Your task to perform on an android device: all mails in gmail Image 0: 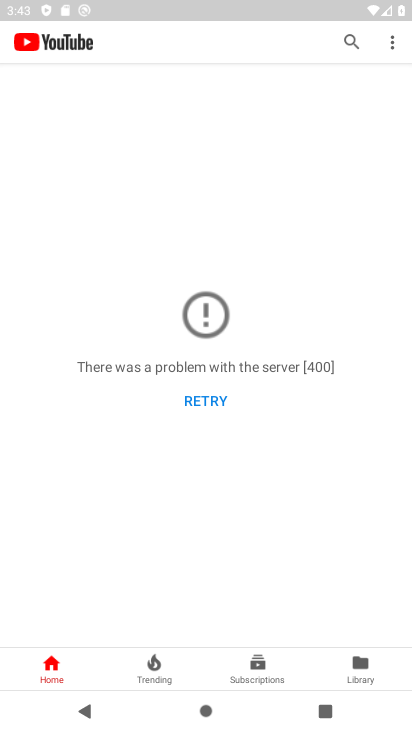
Step 0: press home button
Your task to perform on an android device: all mails in gmail Image 1: 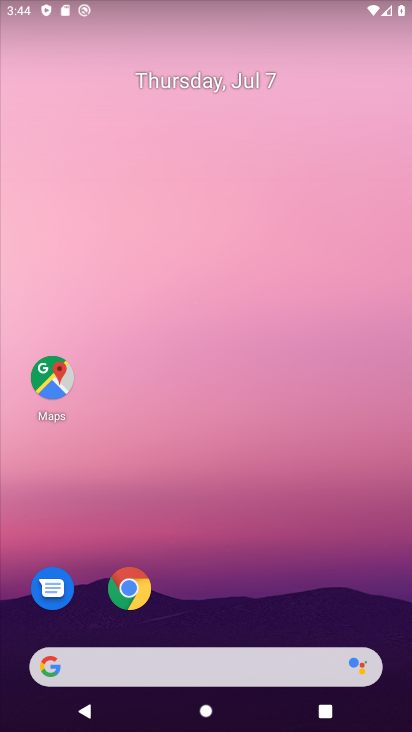
Step 1: drag from (188, 612) to (196, 204)
Your task to perform on an android device: all mails in gmail Image 2: 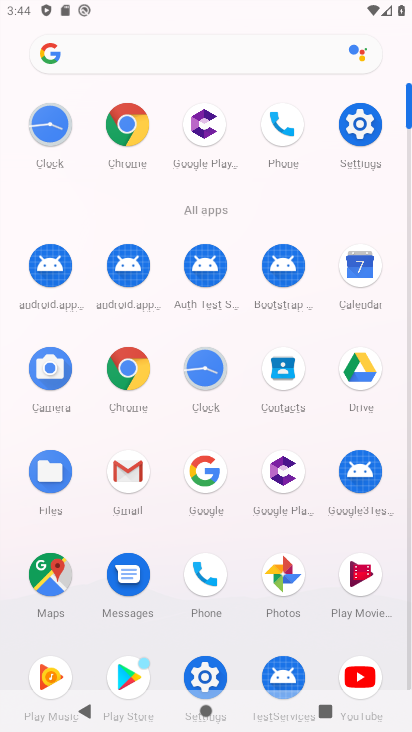
Step 2: click (125, 474)
Your task to perform on an android device: all mails in gmail Image 3: 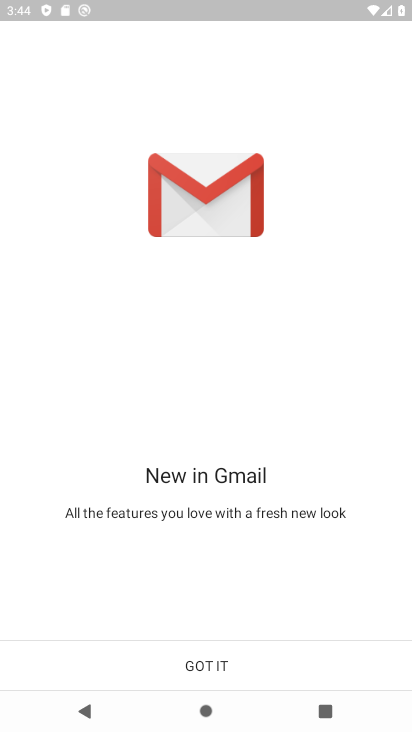
Step 3: click (169, 665)
Your task to perform on an android device: all mails in gmail Image 4: 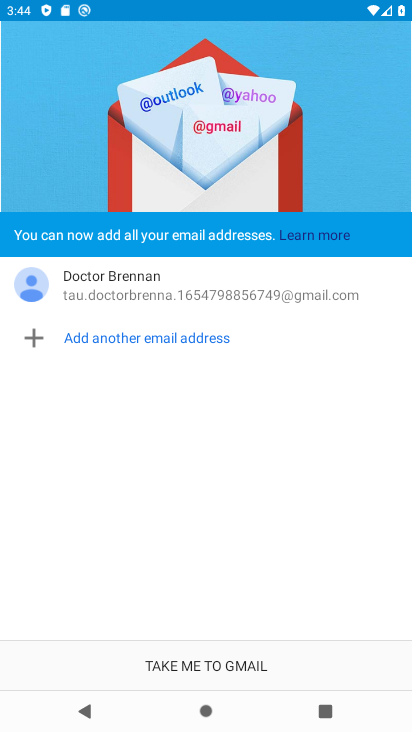
Step 4: click (169, 665)
Your task to perform on an android device: all mails in gmail Image 5: 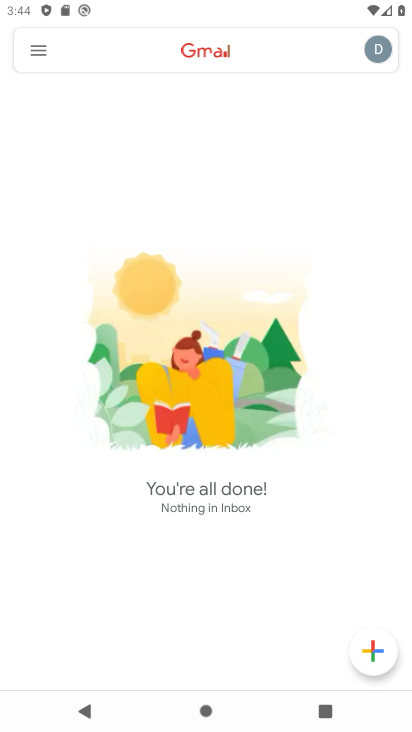
Step 5: click (37, 52)
Your task to perform on an android device: all mails in gmail Image 6: 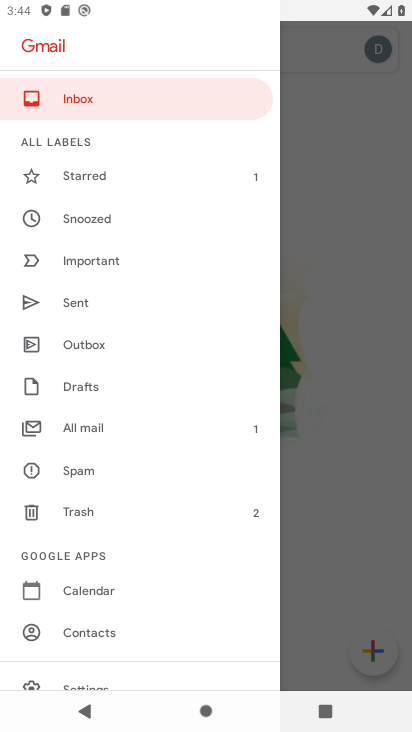
Step 6: click (83, 423)
Your task to perform on an android device: all mails in gmail Image 7: 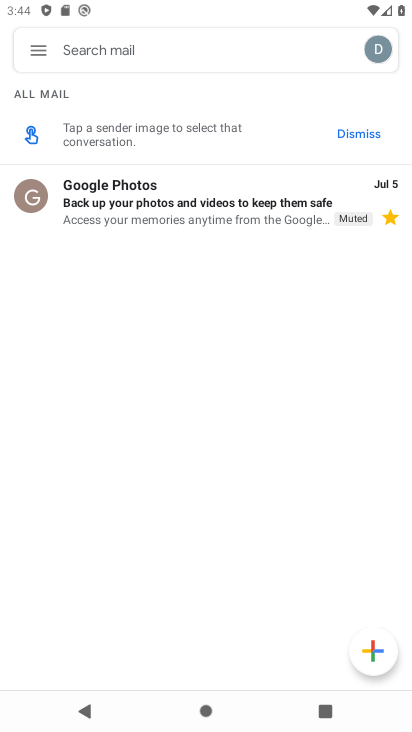
Step 7: task complete